Your task to perform on an android device: add a contact Image 0: 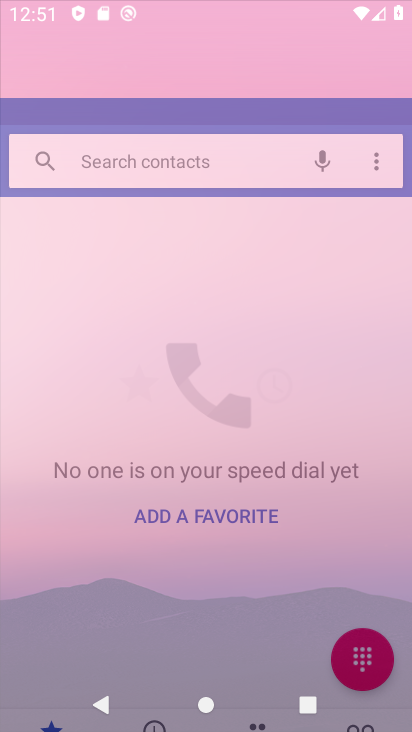
Step 0: drag from (215, 548) to (289, 120)
Your task to perform on an android device: add a contact Image 1: 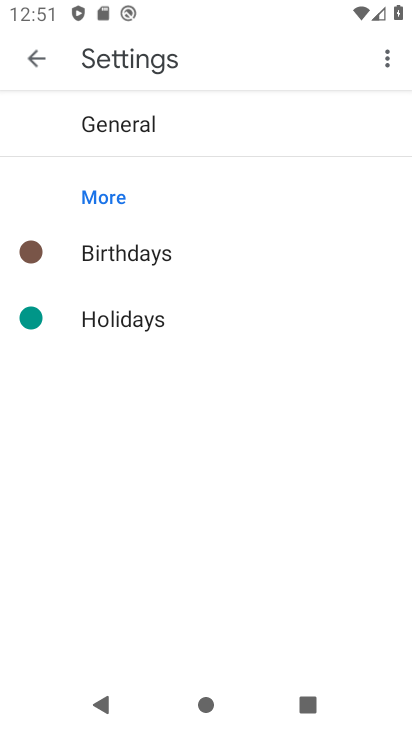
Step 1: press home button
Your task to perform on an android device: add a contact Image 2: 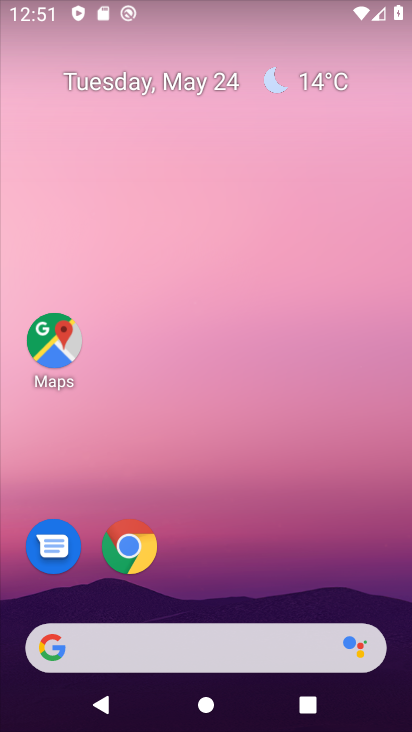
Step 2: drag from (257, 567) to (338, 80)
Your task to perform on an android device: add a contact Image 3: 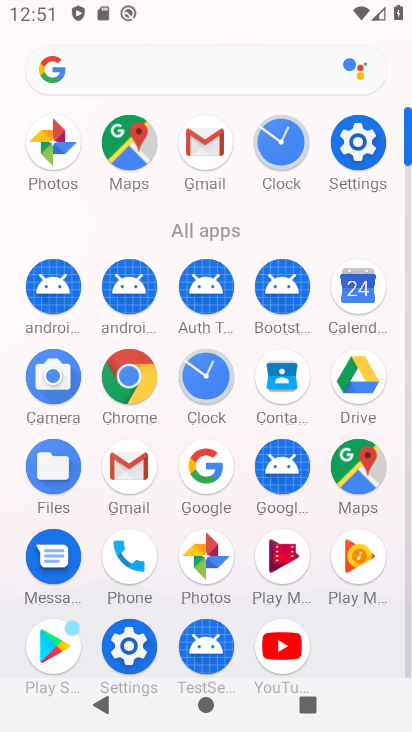
Step 3: click (289, 389)
Your task to perform on an android device: add a contact Image 4: 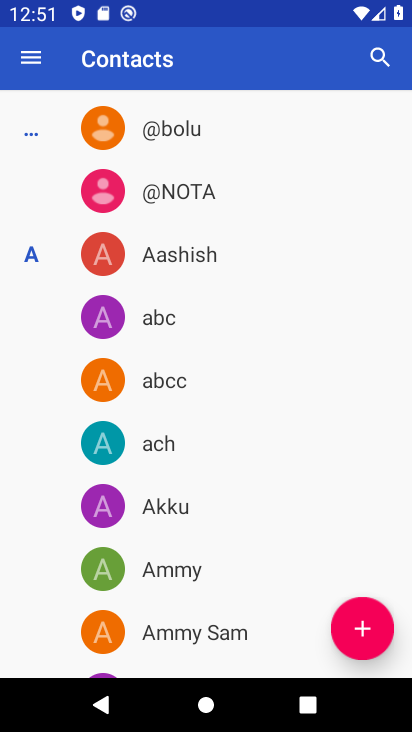
Step 4: click (360, 624)
Your task to perform on an android device: add a contact Image 5: 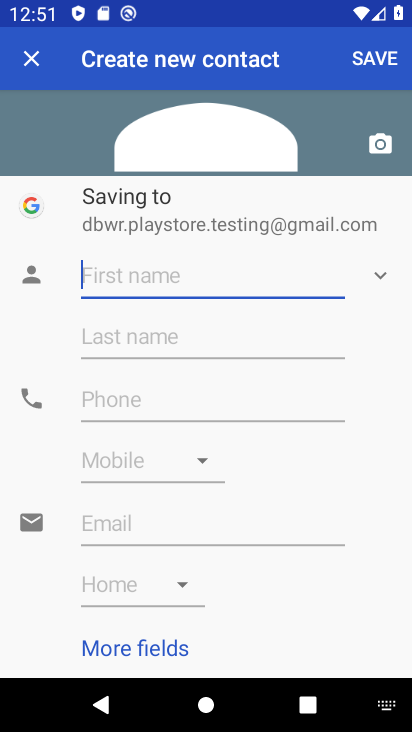
Step 5: type "tytth"
Your task to perform on an android device: add a contact Image 6: 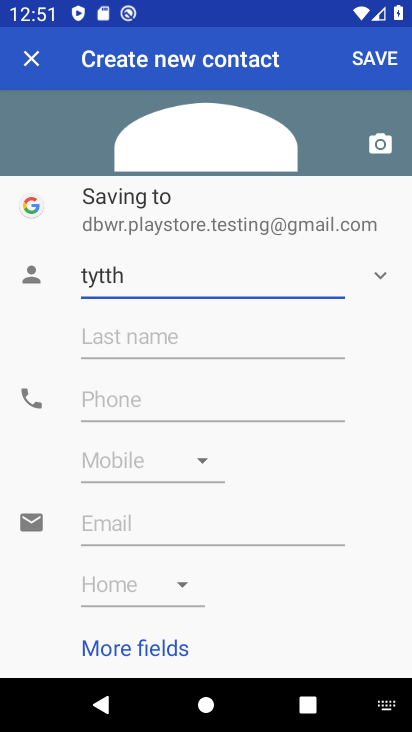
Step 6: click (387, 57)
Your task to perform on an android device: add a contact Image 7: 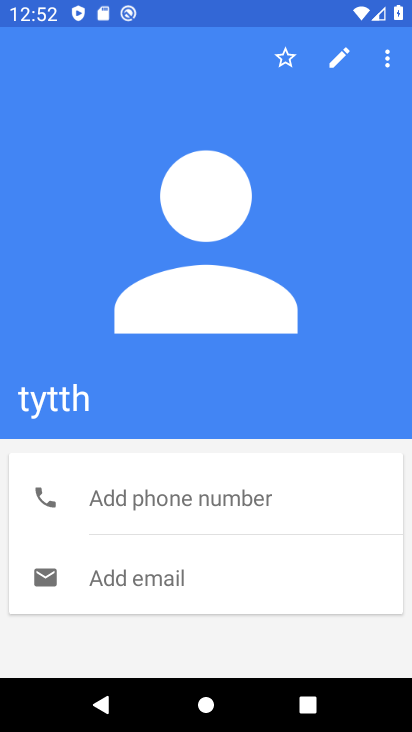
Step 7: task complete